Your task to perform on an android device: Check the news Image 0: 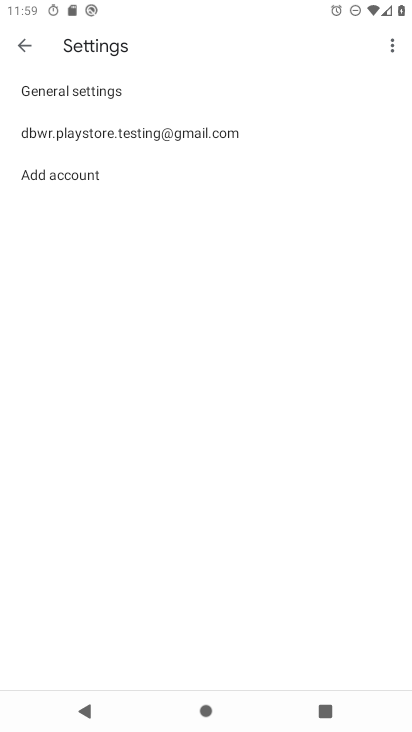
Step 0: press home button
Your task to perform on an android device: Check the news Image 1: 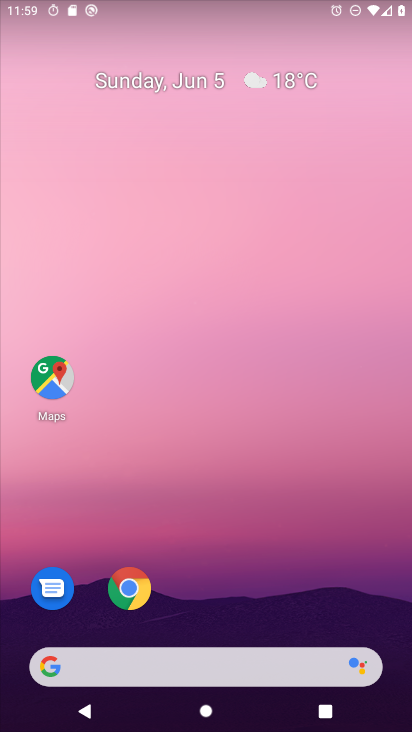
Step 1: task complete